Your task to perform on an android device: set default search engine in the chrome app Image 0: 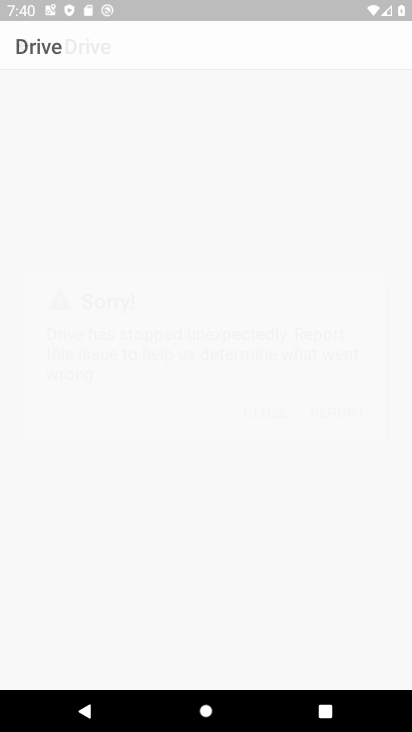
Step 0: press home button
Your task to perform on an android device: set default search engine in the chrome app Image 1: 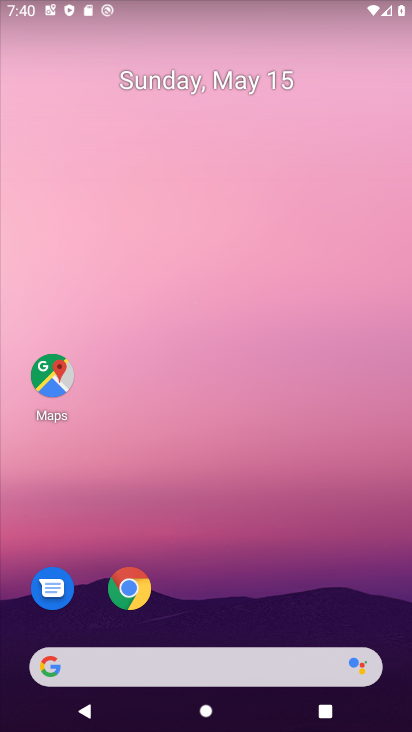
Step 1: click (123, 590)
Your task to perform on an android device: set default search engine in the chrome app Image 2: 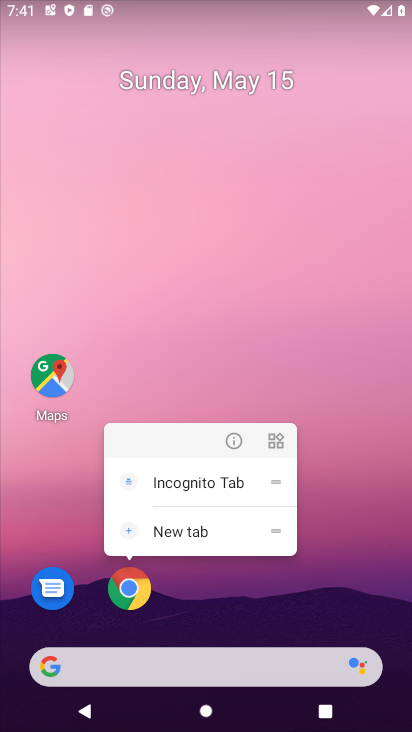
Step 2: click (135, 585)
Your task to perform on an android device: set default search engine in the chrome app Image 3: 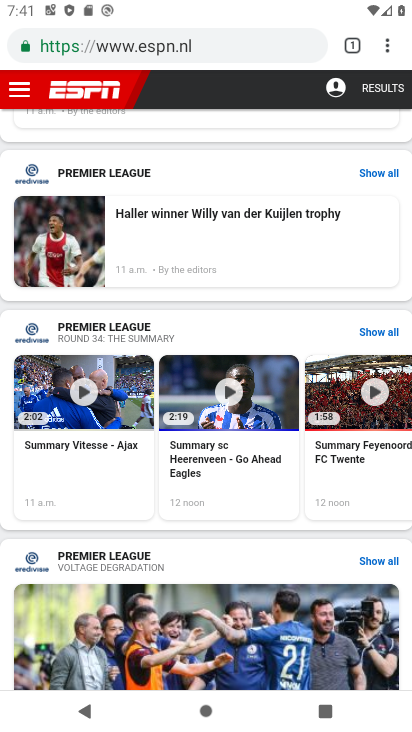
Step 3: click (387, 27)
Your task to perform on an android device: set default search engine in the chrome app Image 4: 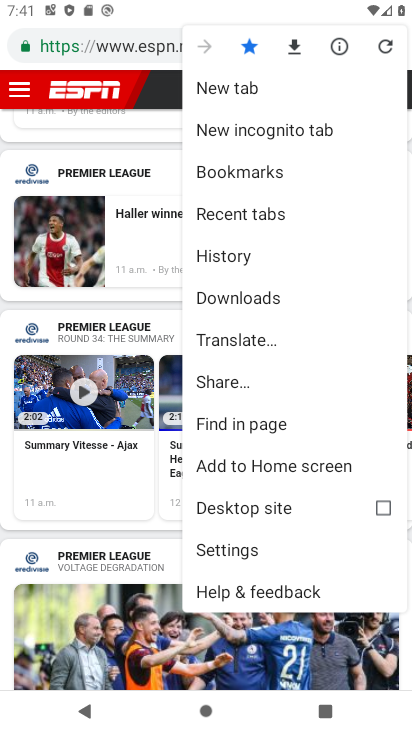
Step 4: click (262, 542)
Your task to perform on an android device: set default search engine in the chrome app Image 5: 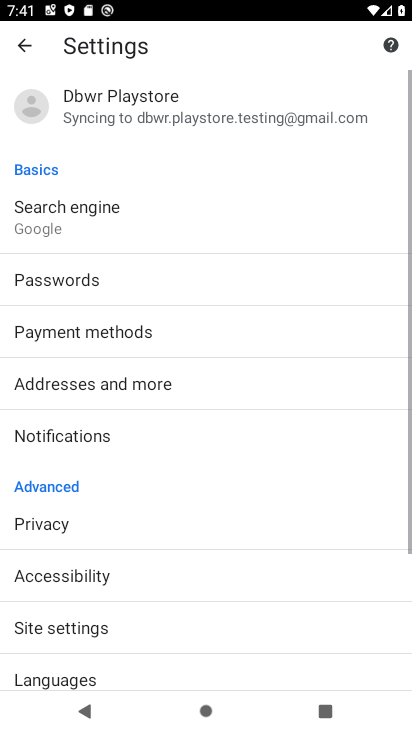
Step 5: click (79, 218)
Your task to perform on an android device: set default search engine in the chrome app Image 6: 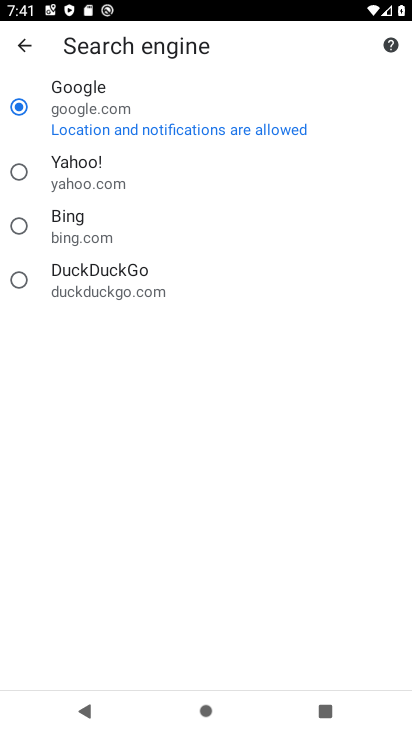
Step 6: click (27, 224)
Your task to perform on an android device: set default search engine in the chrome app Image 7: 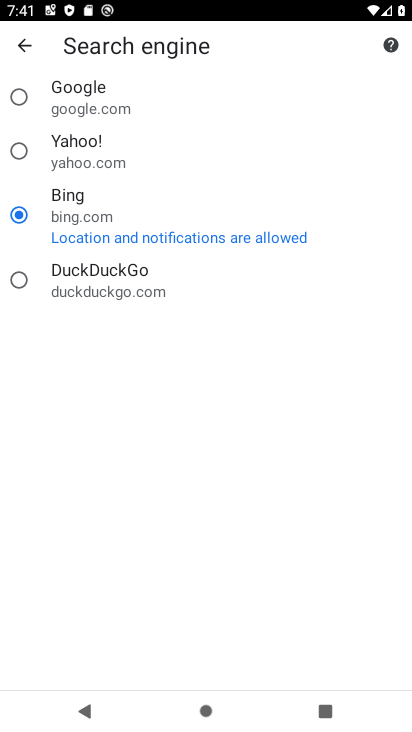
Step 7: task complete